Your task to perform on an android device: Toggle the flashlight Image 0: 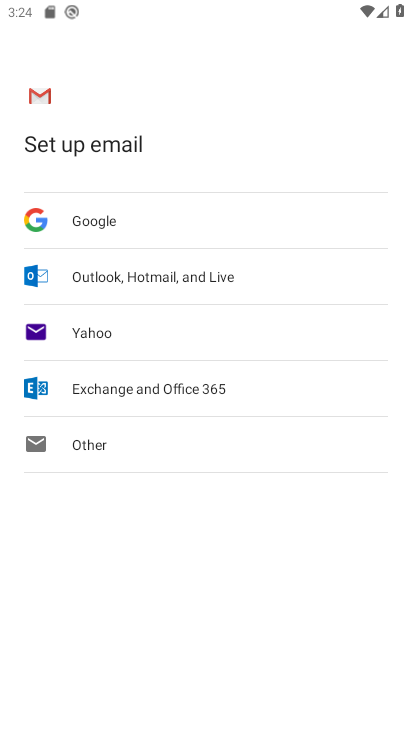
Step 0: press home button
Your task to perform on an android device: Toggle the flashlight Image 1: 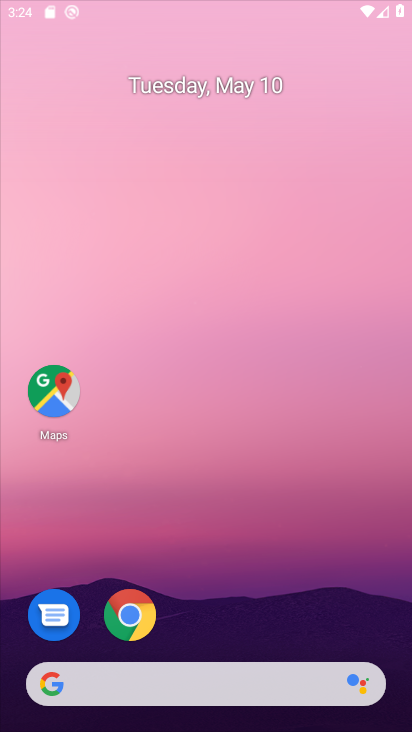
Step 1: drag from (237, 660) to (234, 4)
Your task to perform on an android device: Toggle the flashlight Image 2: 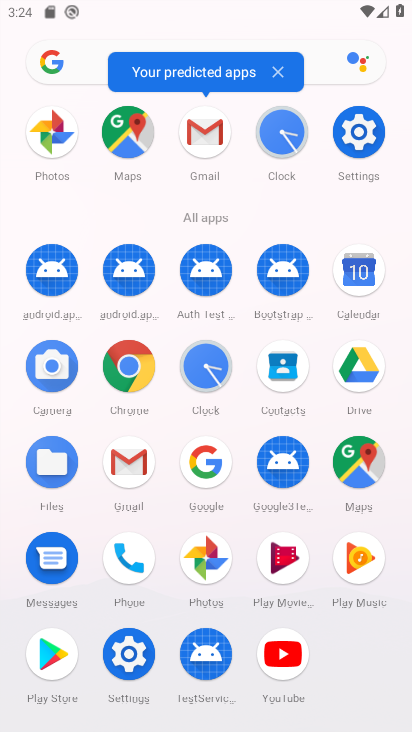
Step 2: click (356, 148)
Your task to perform on an android device: Toggle the flashlight Image 3: 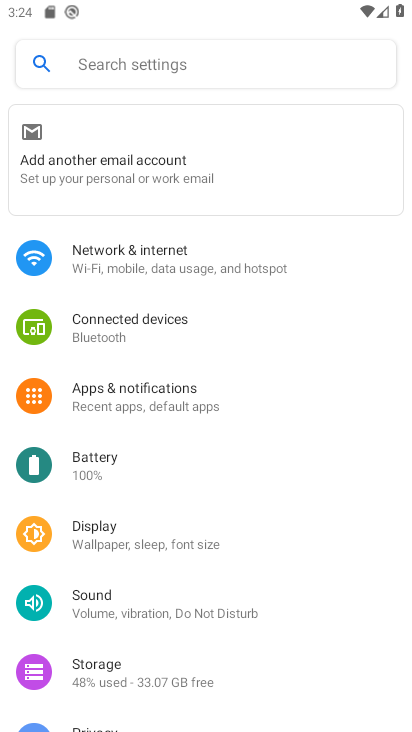
Step 3: task complete